Your task to perform on an android device: What's the weather today? Image 0: 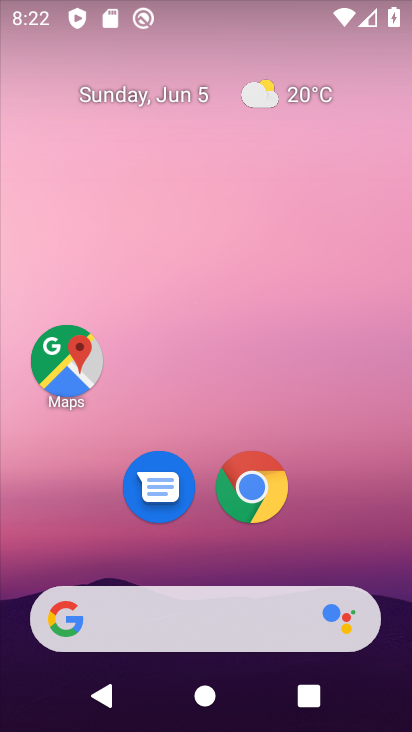
Step 0: click (249, 470)
Your task to perform on an android device: What's the weather today? Image 1: 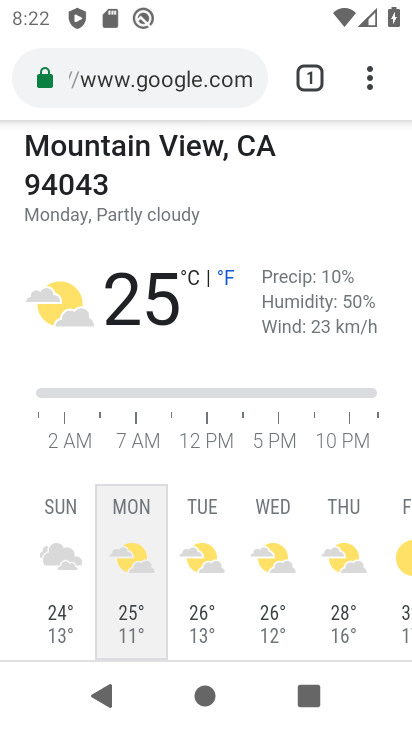
Step 1: click (367, 77)
Your task to perform on an android device: What's the weather today? Image 2: 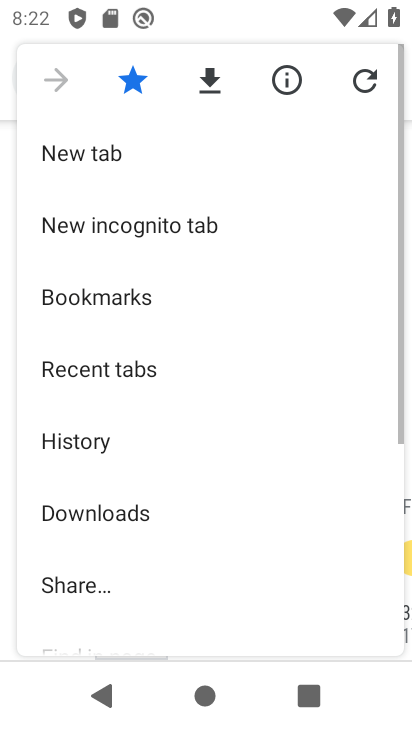
Step 2: click (64, 156)
Your task to perform on an android device: What's the weather today? Image 3: 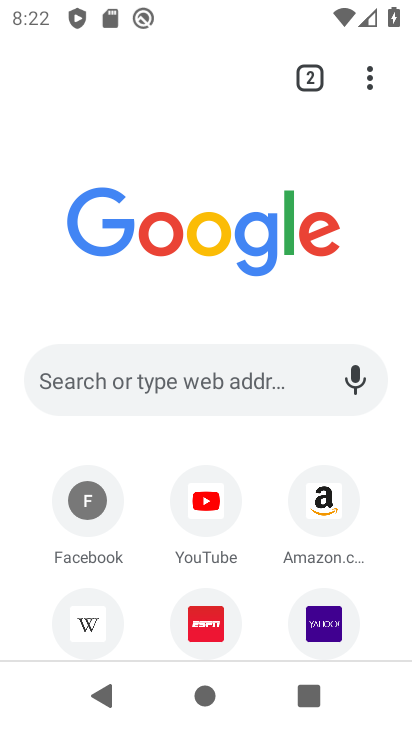
Step 3: click (210, 379)
Your task to perform on an android device: What's the weather today? Image 4: 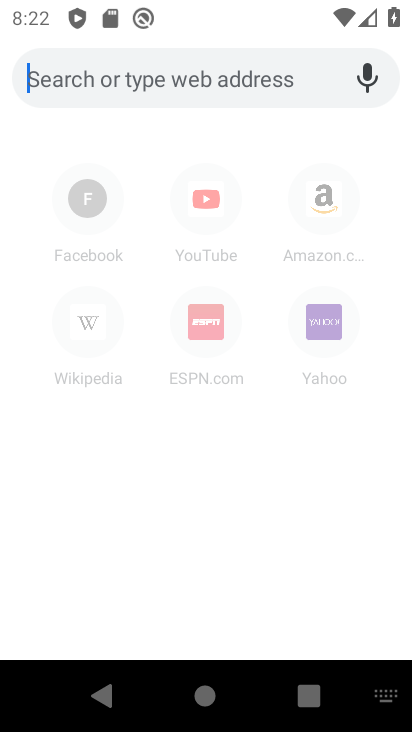
Step 4: type "What's the weather today?"
Your task to perform on an android device: What's the weather today? Image 5: 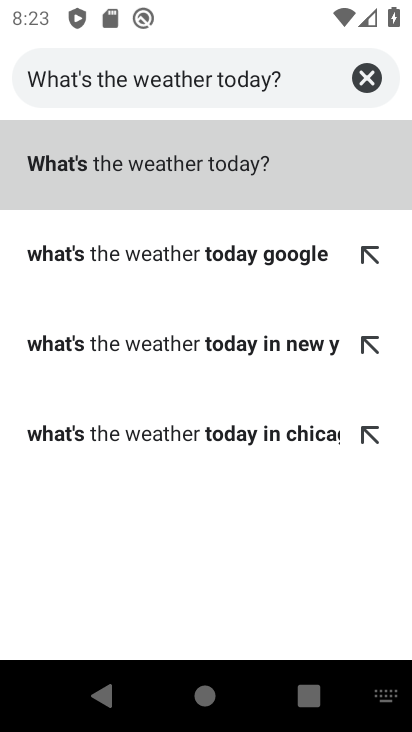
Step 5: click (231, 163)
Your task to perform on an android device: What's the weather today? Image 6: 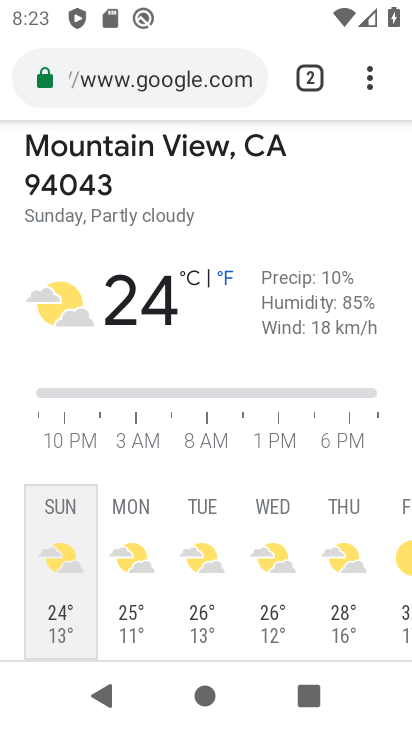
Step 6: task complete